Your task to perform on an android device: turn off notifications settings in the gmail app Image 0: 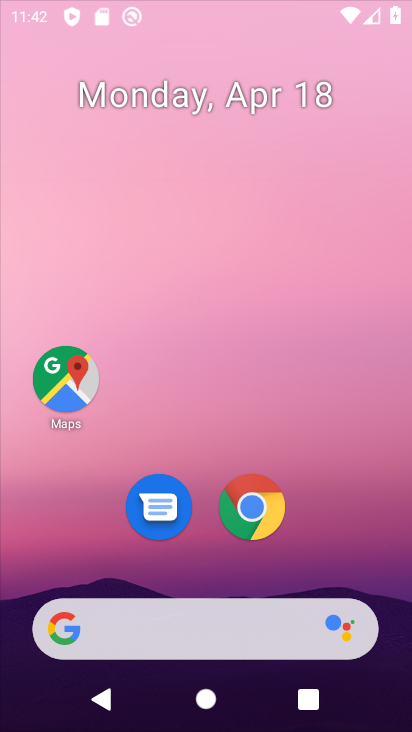
Step 0: drag from (205, 535) to (256, 149)
Your task to perform on an android device: turn off notifications settings in the gmail app Image 1: 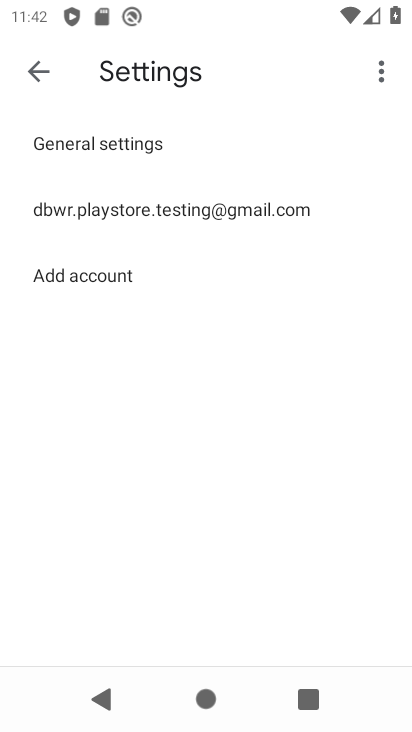
Step 1: click (171, 132)
Your task to perform on an android device: turn off notifications settings in the gmail app Image 2: 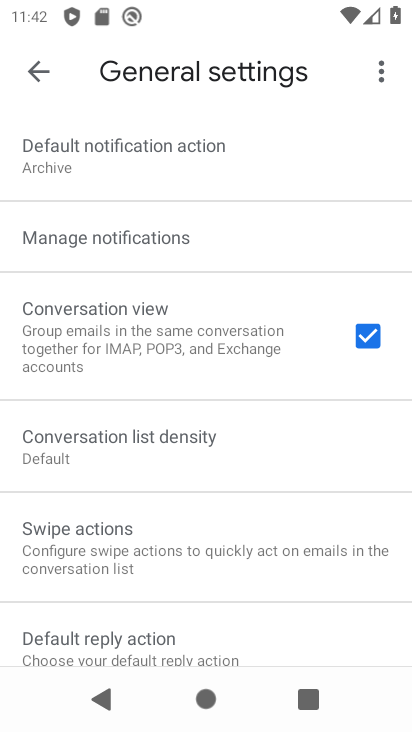
Step 2: click (146, 251)
Your task to perform on an android device: turn off notifications settings in the gmail app Image 3: 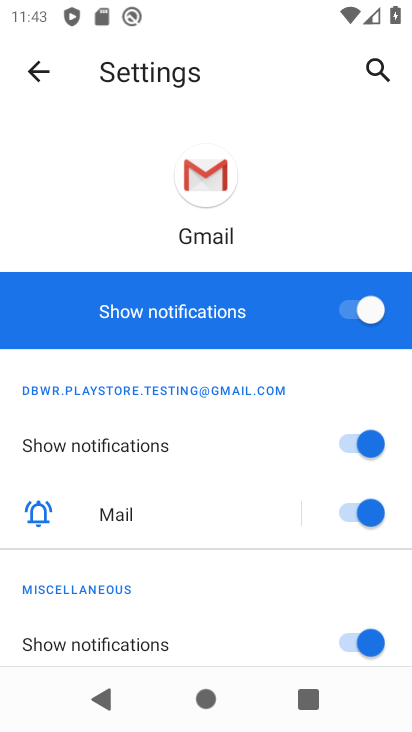
Step 3: click (358, 304)
Your task to perform on an android device: turn off notifications settings in the gmail app Image 4: 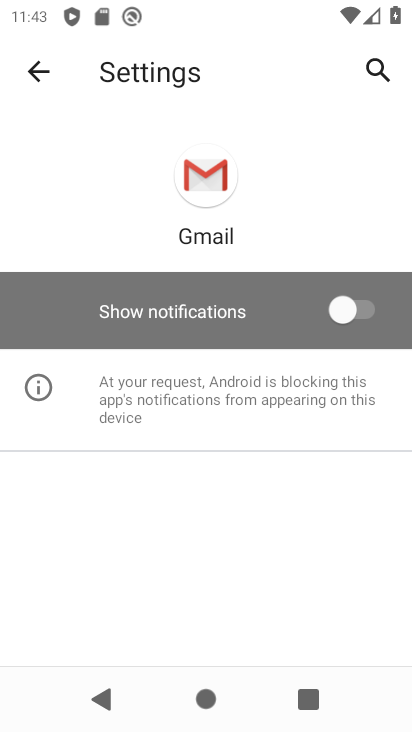
Step 4: task complete